Your task to perform on an android device: Go to sound settings Image 0: 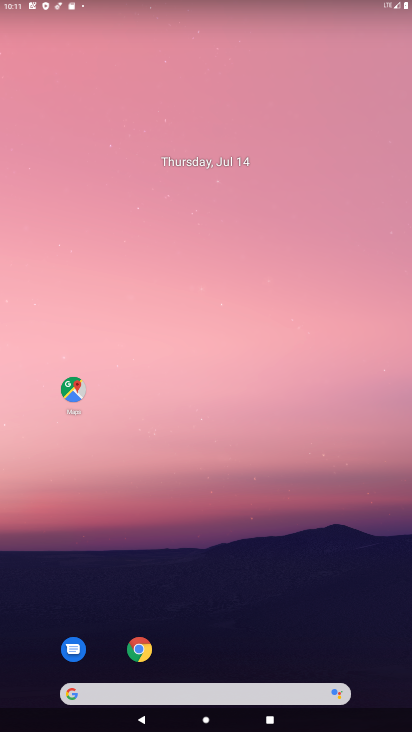
Step 0: drag from (227, 641) to (242, 150)
Your task to perform on an android device: Go to sound settings Image 1: 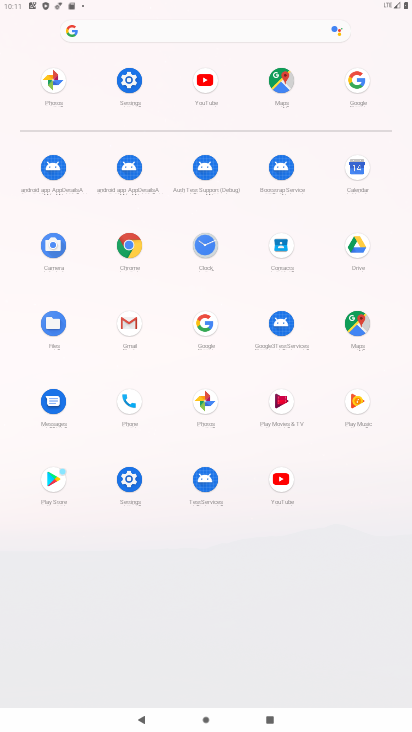
Step 1: click (112, 71)
Your task to perform on an android device: Go to sound settings Image 2: 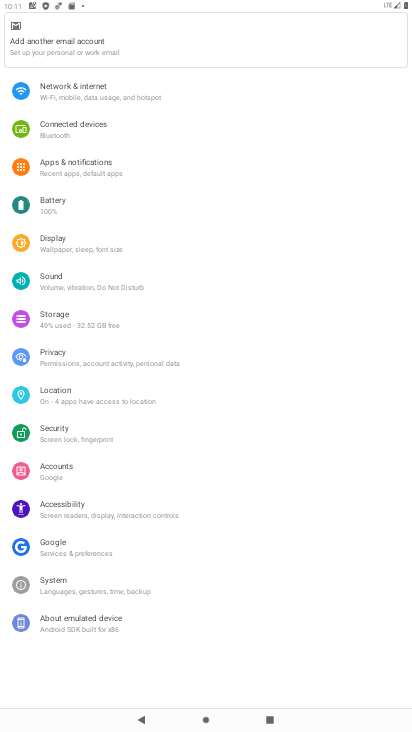
Step 2: click (46, 288)
Your task to perform on an android device: Go to sound settings Image 3: 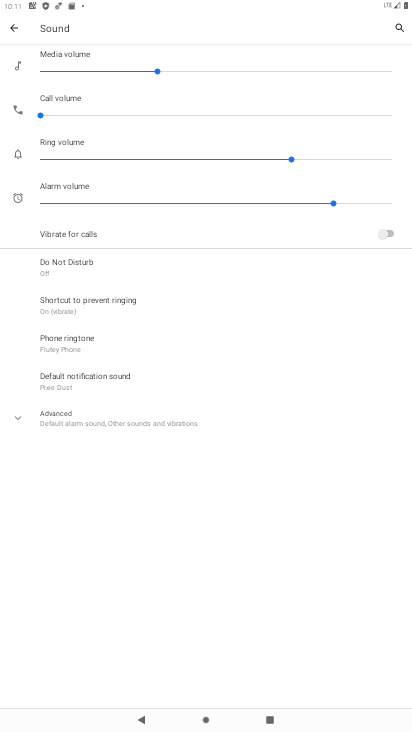
Step 3: task complete